Your task to perform on an android device: What's the weather? Image 0: 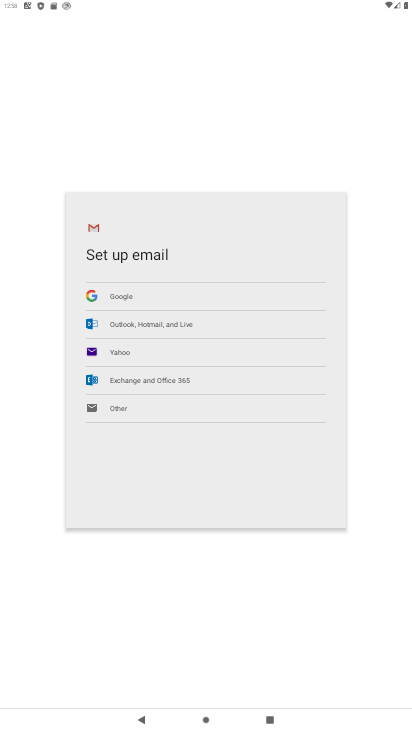
Step 0: press home button
Your task to perform on an android device: What's the weather? Image 1: 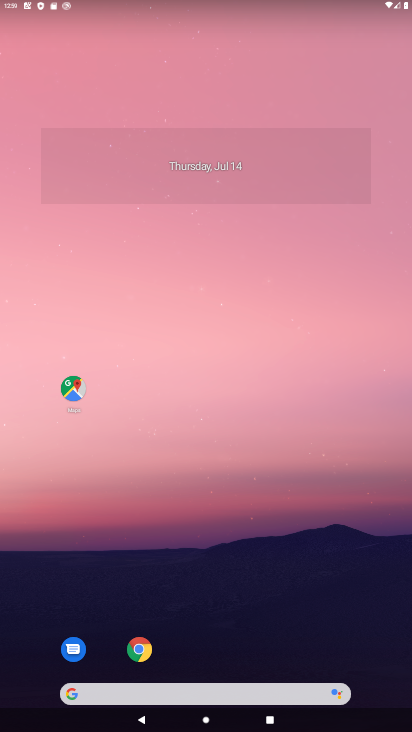
Step 1: drag from (228, 382) to (293, 9)
Your task to perform on an android device: What's the weather? Image 2: 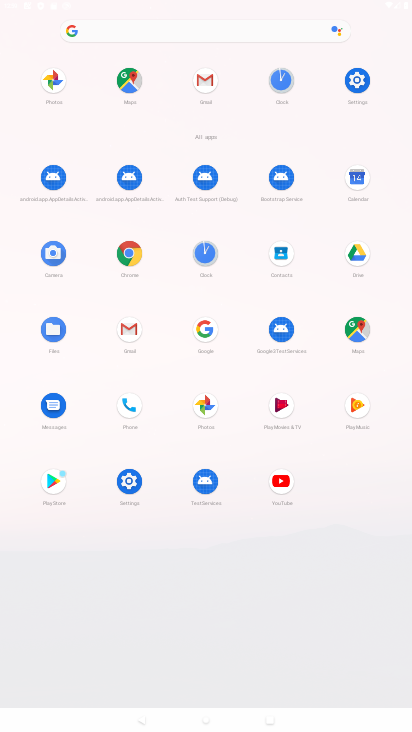
Step 2: click (201, 327)
Your task to perform on an android device: What's the weather? Image 3: 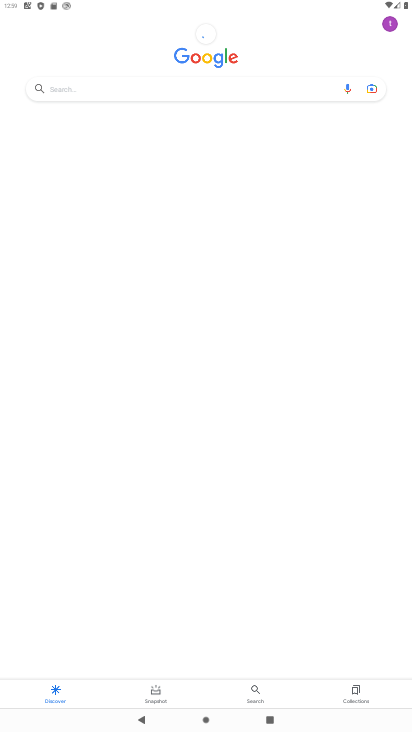
Step 3: click (203, 99)
Your task to perform on an android device: What's the weather? Image 4: 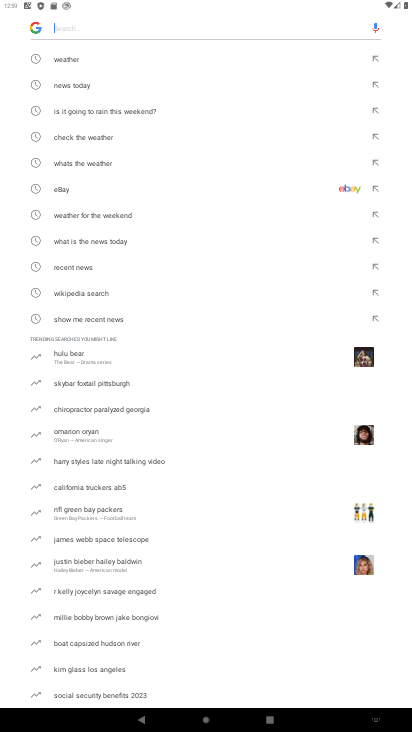
Step 4: click (67, 62)
Your task to perform on an android device: What's the weather? Image 5: 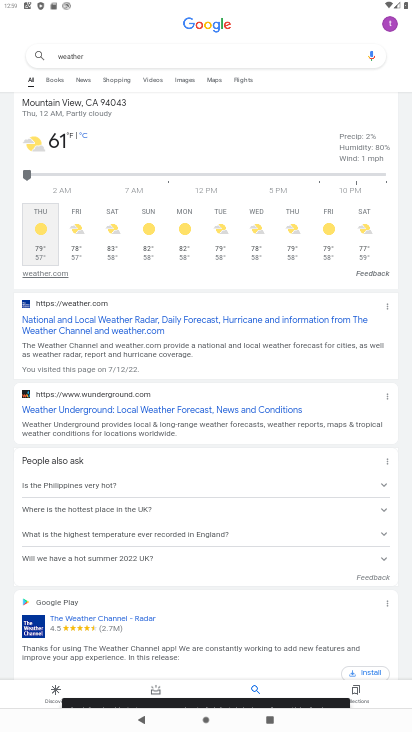
Step 5: task complete